Your task to perform on an android device: Open settings Image 0: 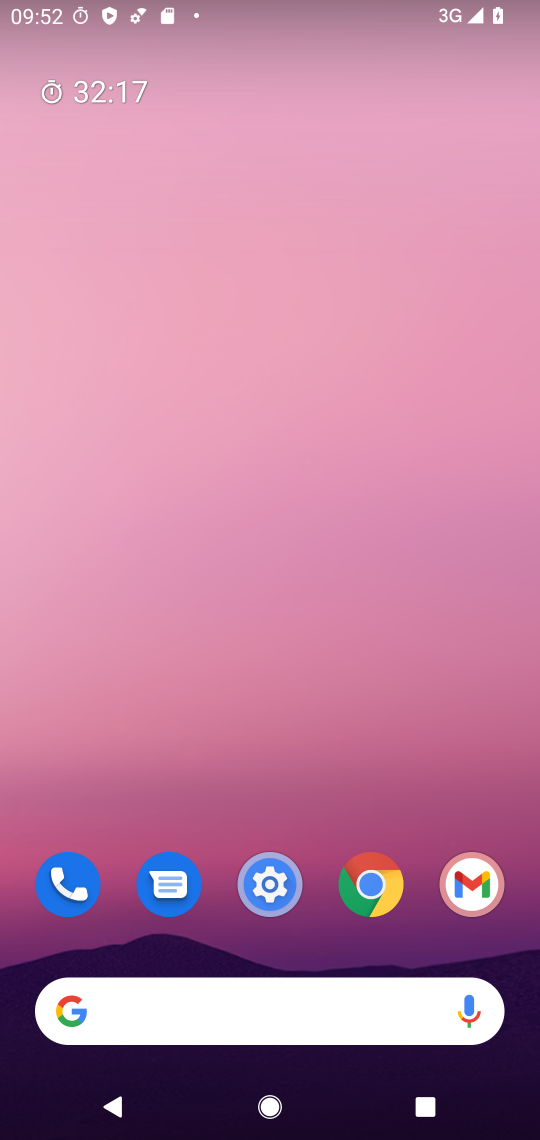
Step 0: click (273, 870)
Your task to perform on an android device: Open settings Image 1: 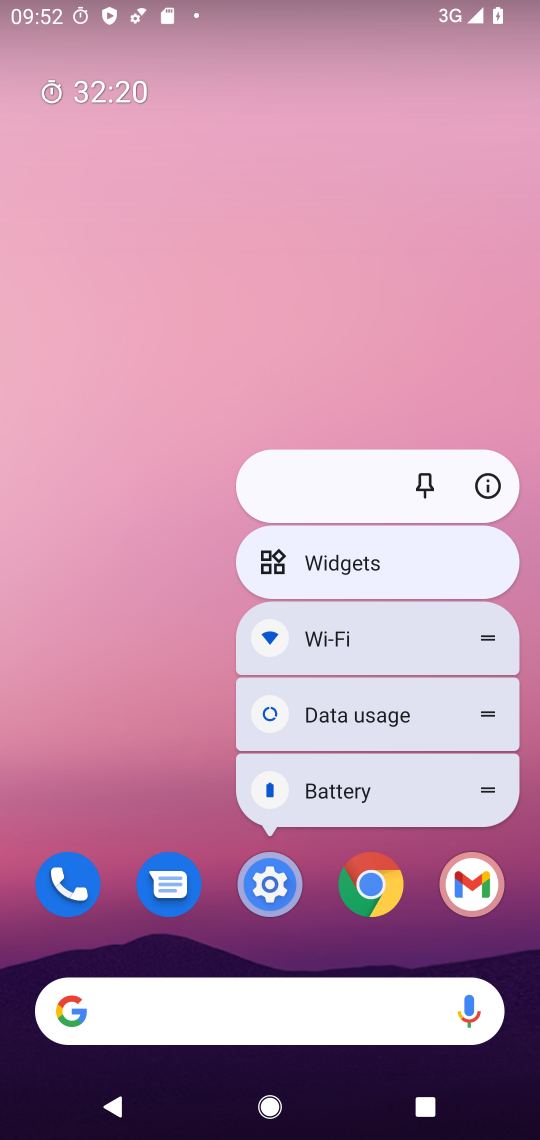
Step 1: click (274, 891)
Your task to perform on an android device: Open settings Image 2: 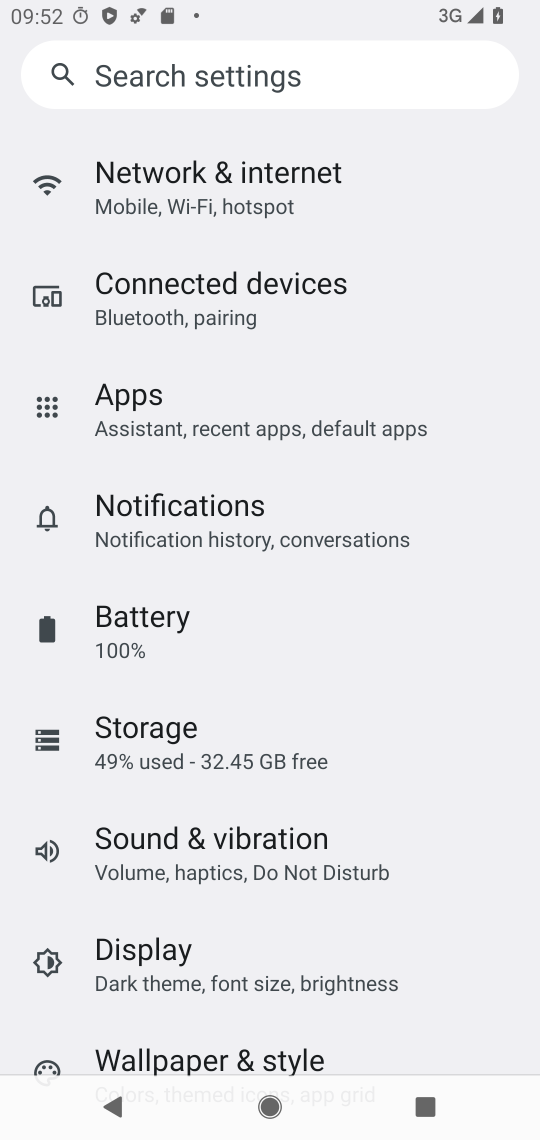
Step 2: task complete